Your task to perform on an android device: set the timer Image 0: 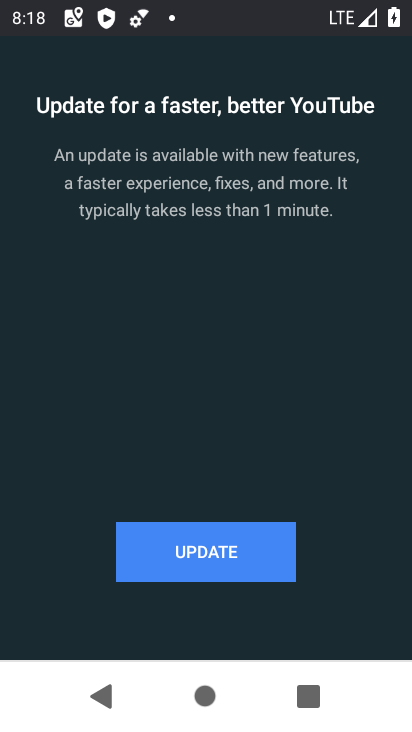
Step 0: press back button
Your task to perform on an android device: set the timer Image 1: 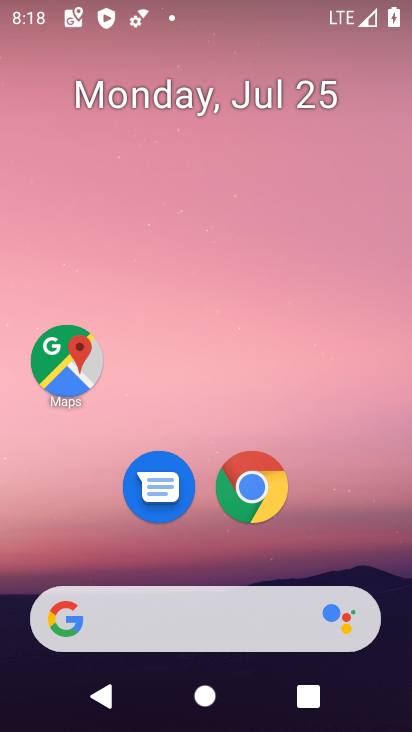
Step 1: drag from (187, 558) to (297, 15)
Your task to perform on an android device: set the timer Image 2: 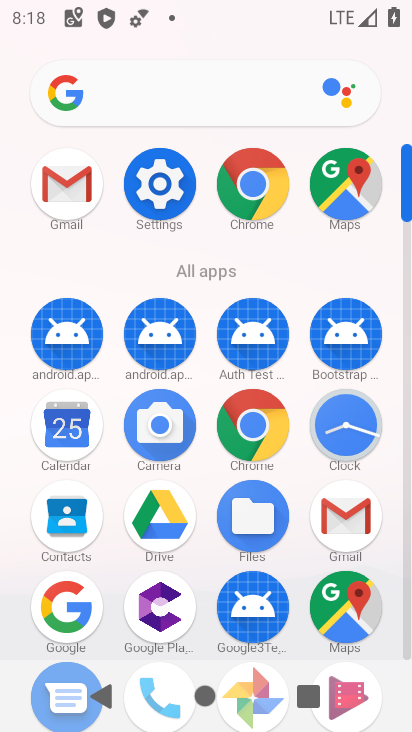
Step 2: click (329, 436)
Your task to perform on an android device: set the timer Image 3: 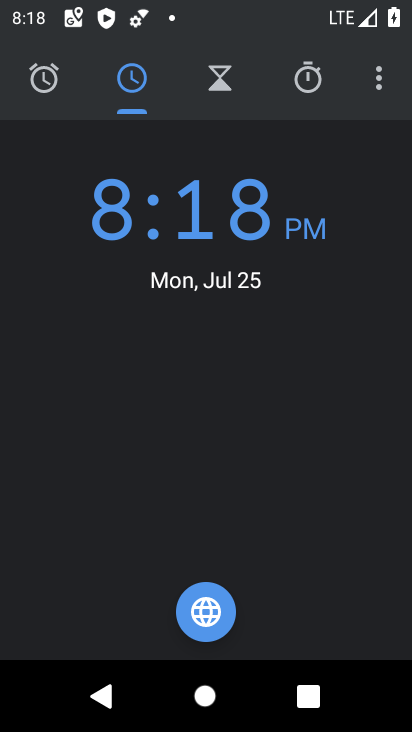
Step 3: click (214, 57)
Your task to perform on an android device: set the timer Image 4: 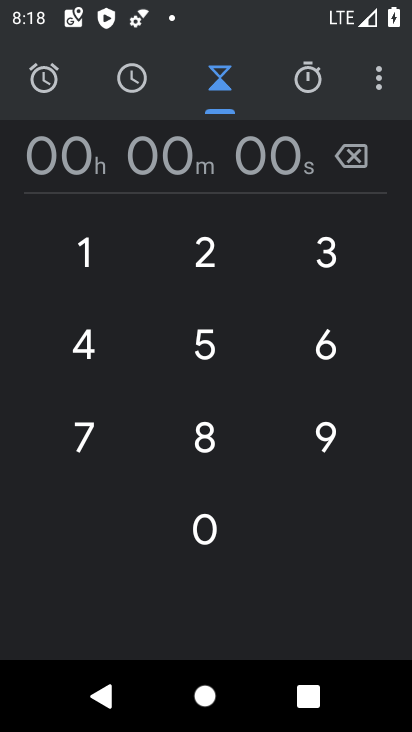
Step 4: click (212, 244)
Your task to perform on an android device: set the timer Image 5: 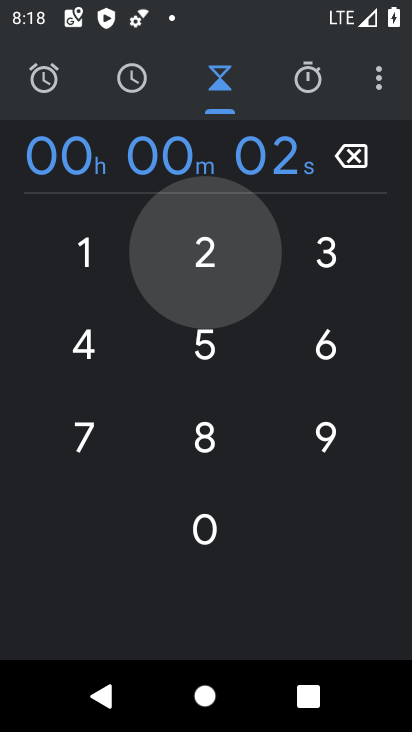
Step 5: click (323, 245)
Your task to perform on an android device: set the timer Image 6: 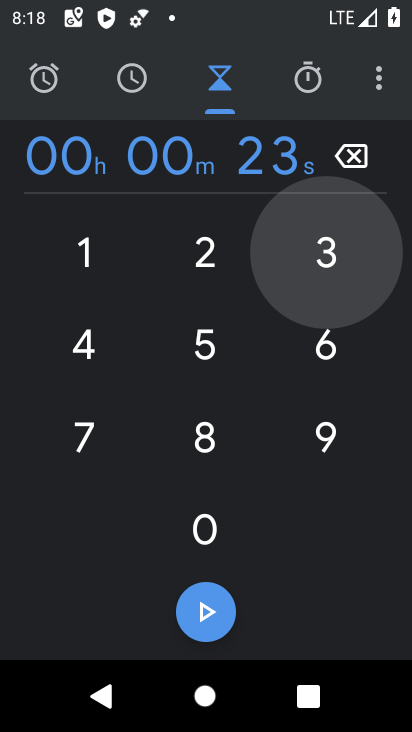
Step 6: click (185, 349)
Your task to perform on an android device: set the timer Image 7: 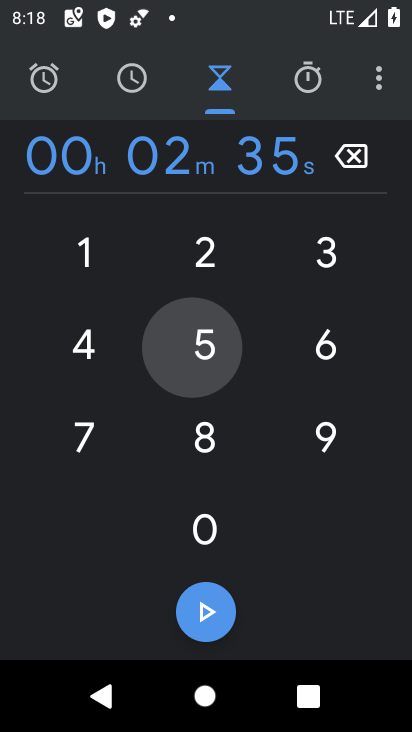
Step 7: click (323, 345)
Your task to perform on an android device: set the timer Image 8: 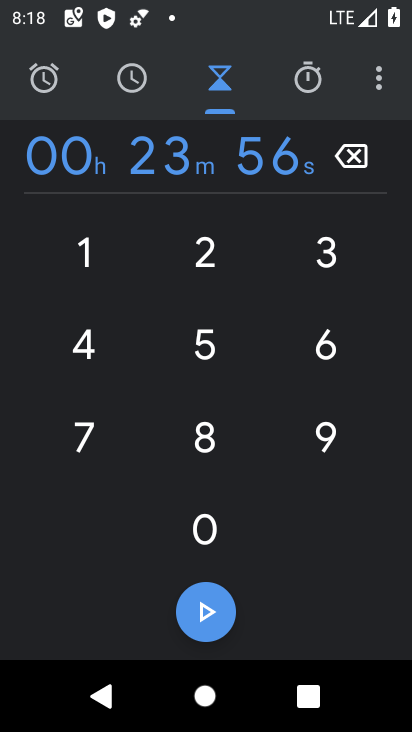
Step 8: click (209, 432)
Your task to perform on an android device: set the timer Image 9: 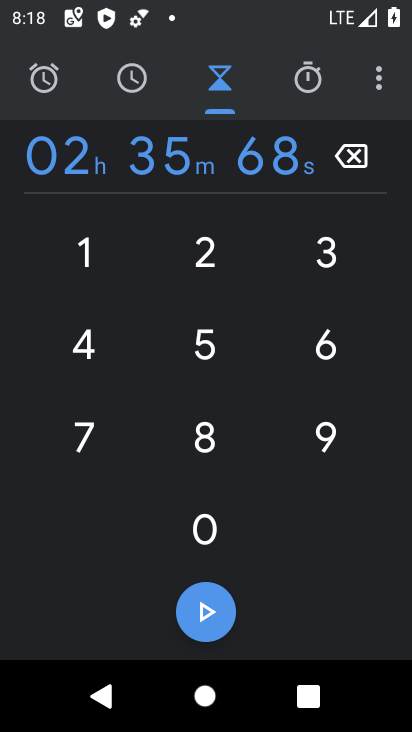
Step 9: click (337, 436)
Your task to perform on an android device: set the timer Image 10: 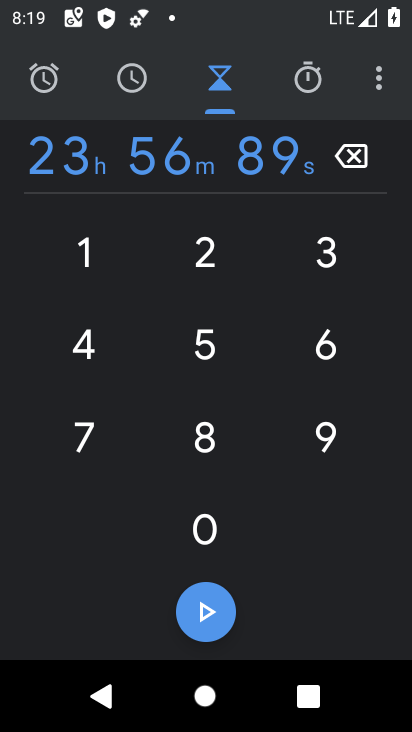
Step 10: task complete